Your task to perform on an android device: Open sound settings Image 0: 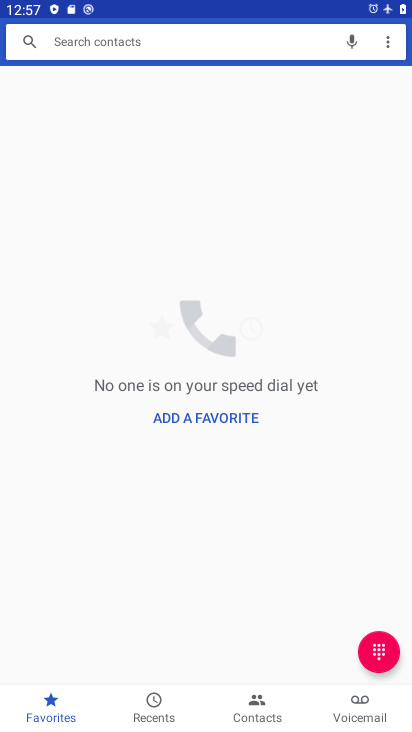
Step 0: press home button
Your task to perform on an android device: Open sound settings Image 1: 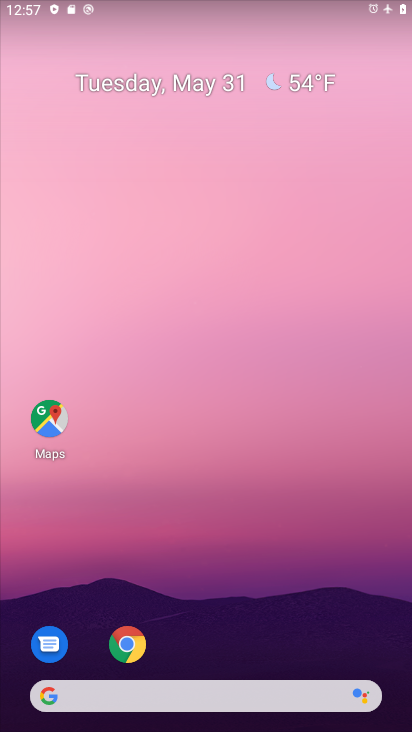
Step 1: drag from (247, 643) to (260, 177)
Your task to perform on an android device: Open sound settings Image 2: 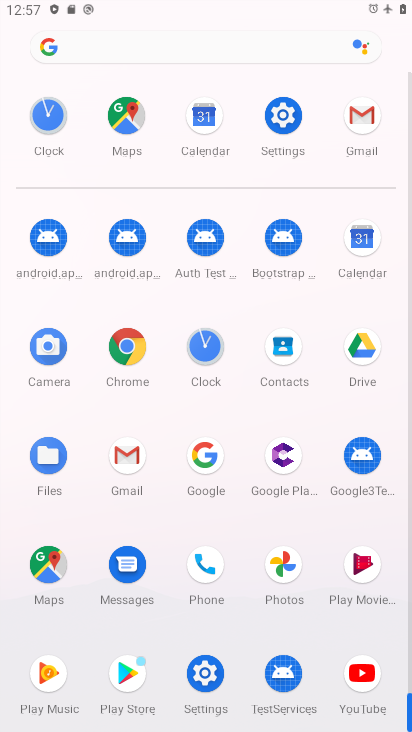
Step 2: click (288, 123)
Your task to perform on an android device: Open sound settings Image 3: 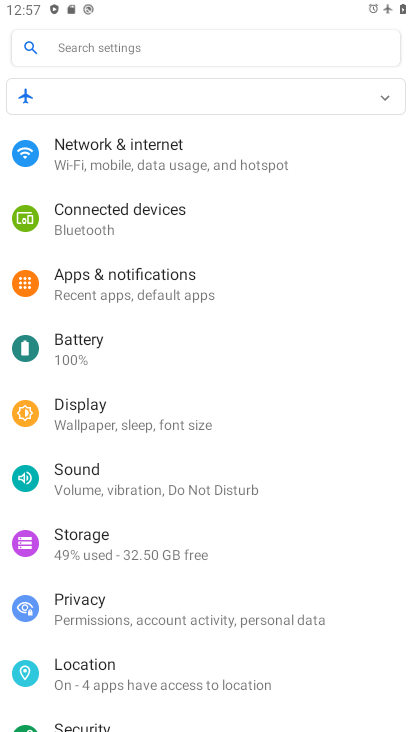
Step 3: click (70, 478)
Your task to perform on an android device: Open sound settings Image 4: 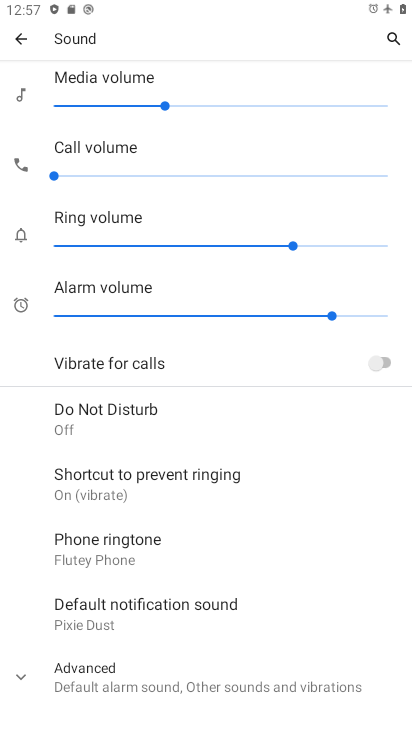
Step 4: task complete